Your task to perform on an android device: Turn on the flashlight Image 0: 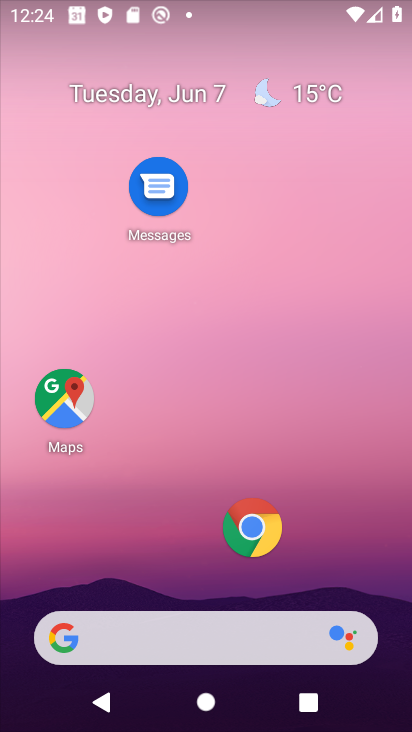
Step 0: drag from (270, 1) to (285, 58)
Your task to perform on an android device: Turn on the flashlight Image 1: 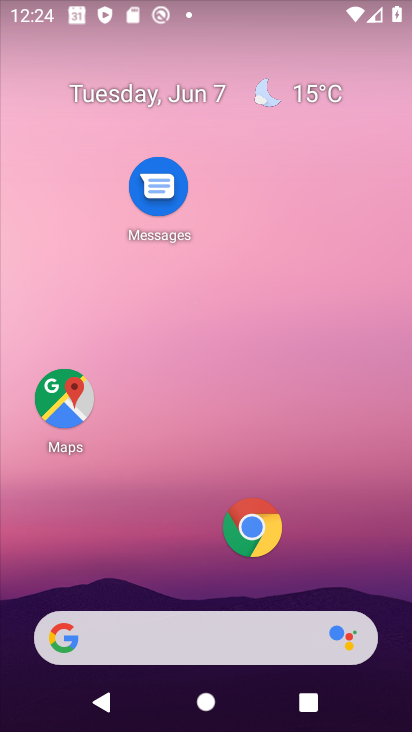
Step 1: drag from (221, 11) to (278, 471)
Your task to perform on an android device: Turn on the flashlight Image 2: 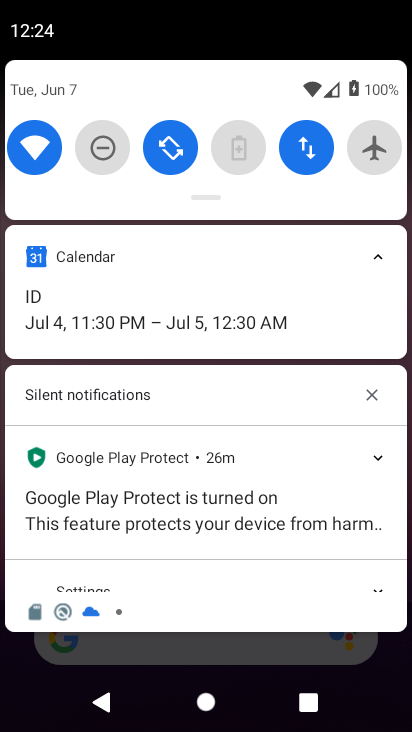
Step 2: drag from (308, 153) to (359, 574)
Your task to perform on an android device: Turn on the flashlight Image 3: 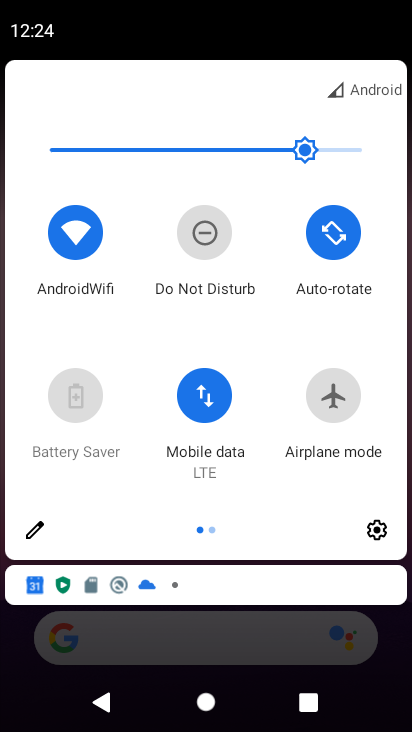
Step 3: drag from (358, 329) to (1, 378)
Your task to perform on an android device: Turn on the flashlight Image 4: 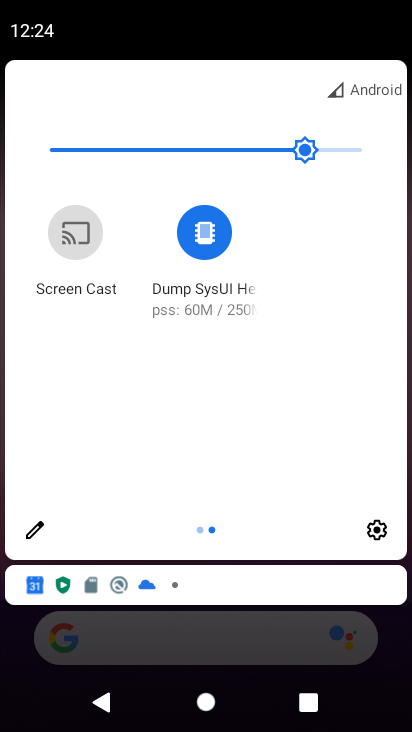
Step 4: click (34, 535)
Your task to perform on an android device: Turn on the flashlight Image 5: 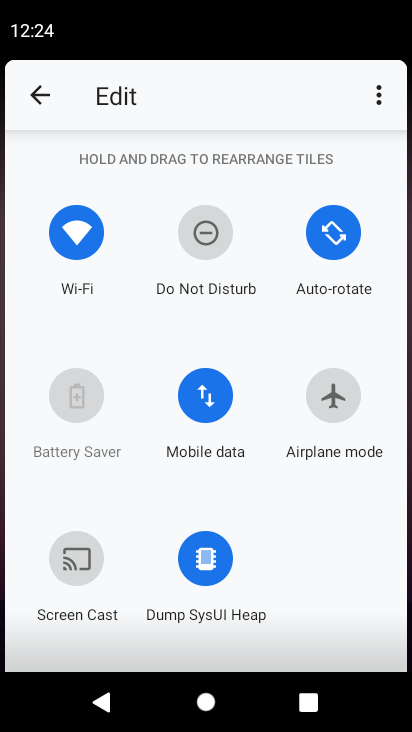
Step 5: task complete